Your task to perform on an android device: open app "McDonald's" (install if not already installed) and enter user name: "copes@yahoo.com" and password: "Rhenish" Image 0: 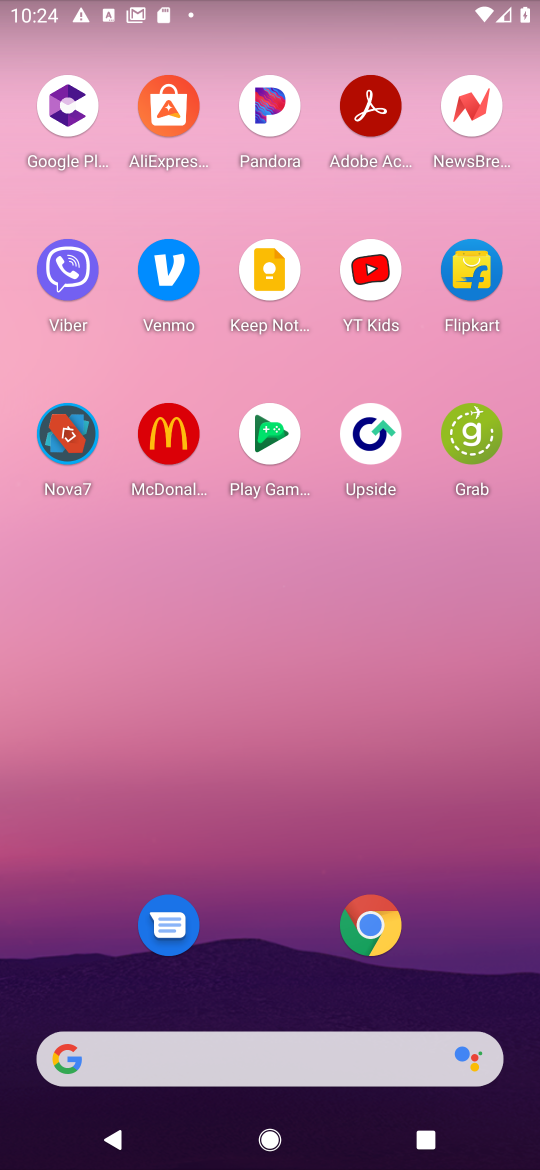
Step 0: drag from (257, 346) to (255, 150)
Your task to perform on an android device: open app "McDonald's" (install if not already installed) and enter user name: "copes@yahoo.com" and password: "Rhenish" Image 1: 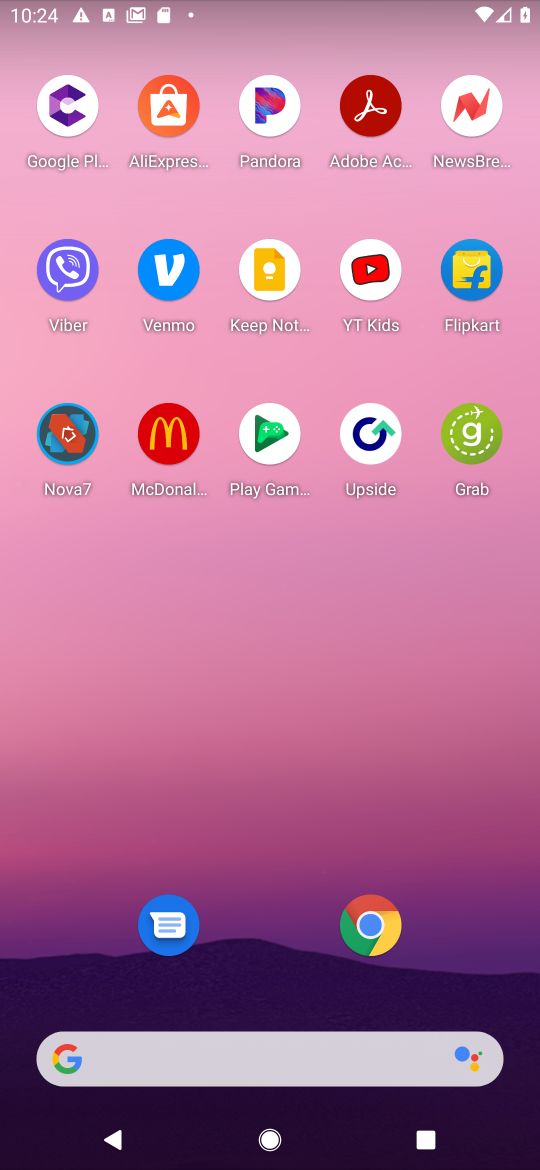
Step 1: drag from (262, 851) to (257, 23)
Your task to perform on an android device: open app "McDonald's" (install if not already installed) and enter user name: "copes@yahoo.com" and password: "Rhenish" Image 2: 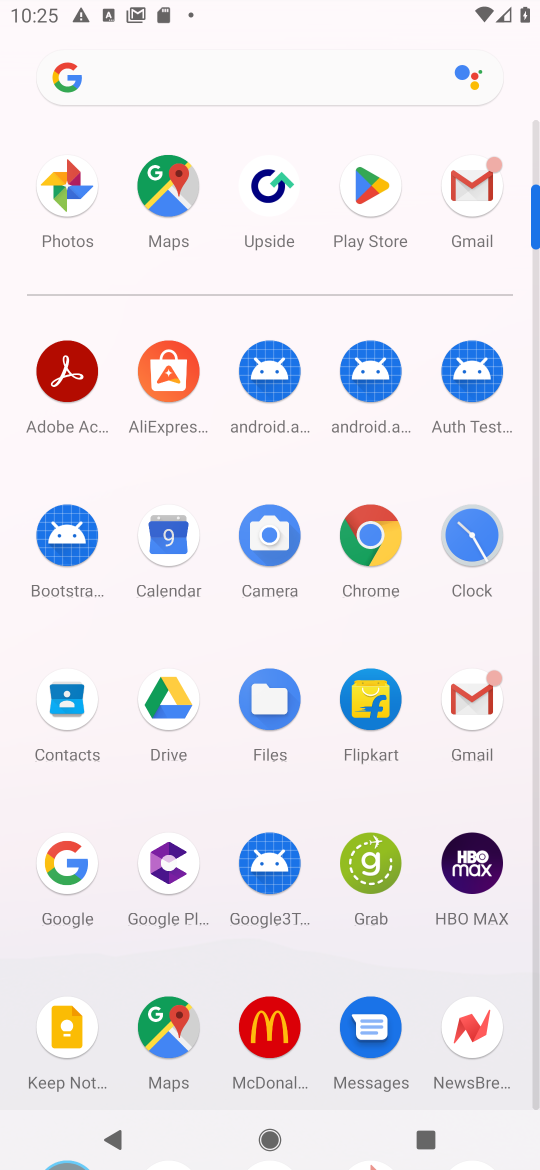
Step 2: click (376, 189)
Your task to perform on an android device: open app "McDonald's" (install if not already installed) and enter user name: "copes@yahoo.com" and password: "Rhenish" Image 3: 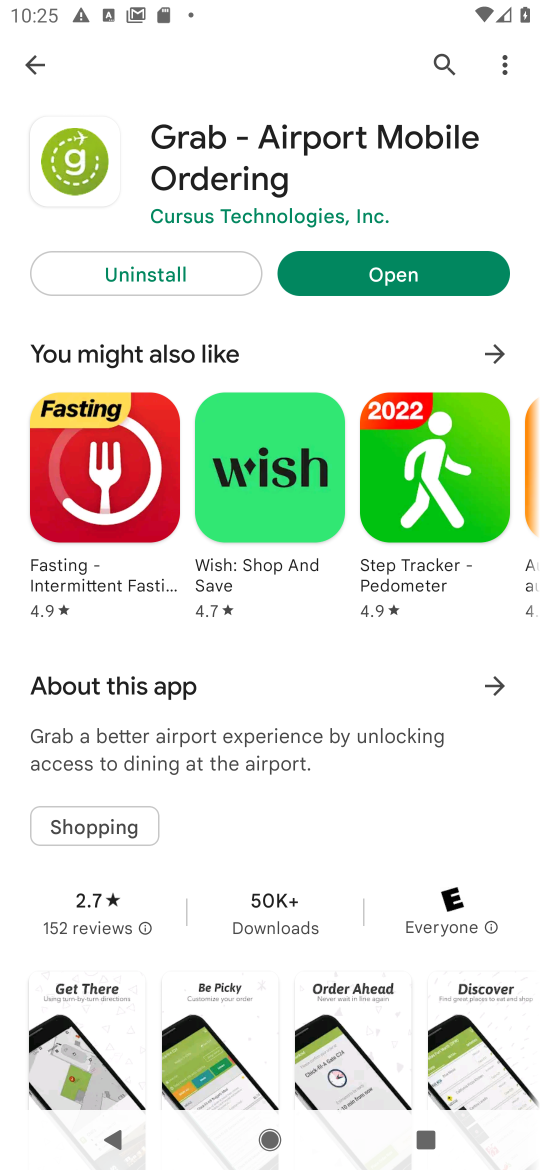
Step 3: click (31, 70)
Your task to perform on an android device: open app "McDonald's" (install if not already installed) and enter user name: "copes@yahoo.com" and password: "Rhenish" Image 4: 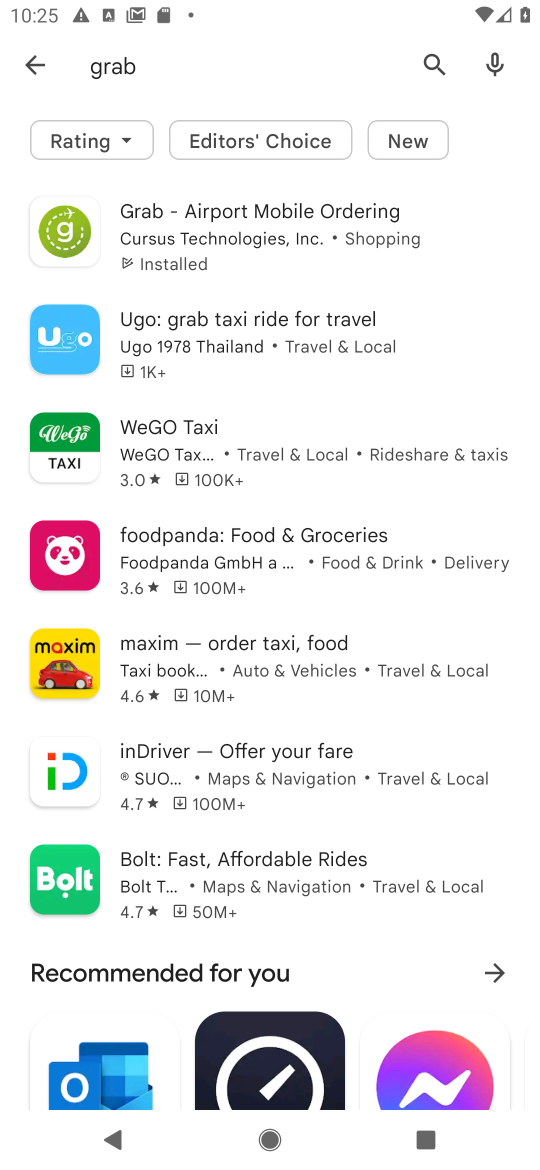
Step 4: click (46, 60)
Your task to perform on an android device: open app "McDonald's" (install if not already installed) and enter user name: "copes@yahoo.com" and password: "Rhenish" Image 5: 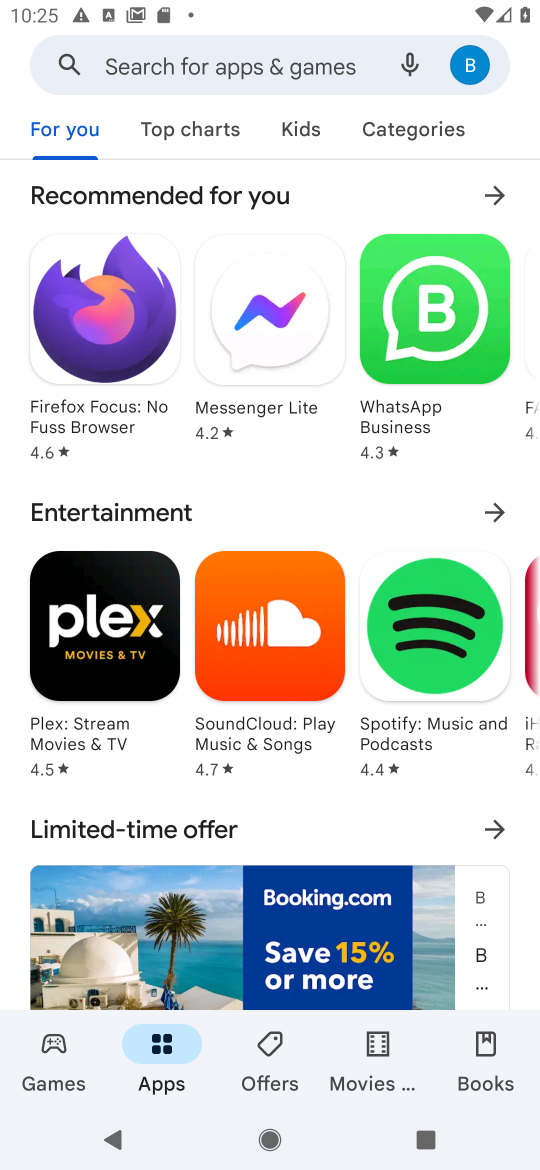
Step 5: click (225, 63)
Your task to perform on an android device: open app "McDonald's" (install if not already installed) and enter user name: "copes@yahoo.com" and password: "Rhenish" Image 6: 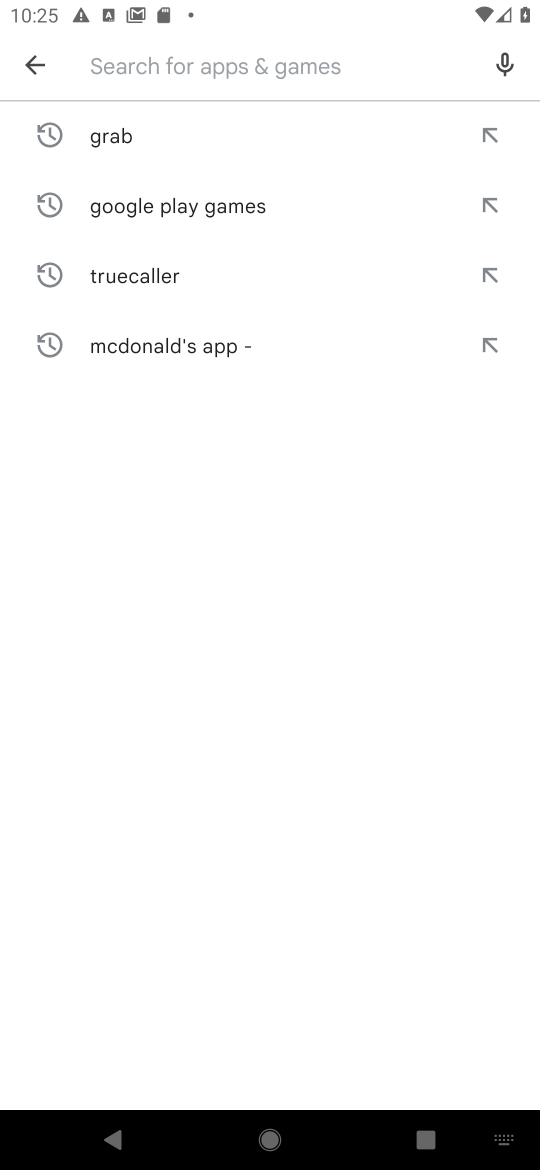
Step 6: type "McDonald's"
Your task to perform on an android device: open app "McDonald's" (install if not already installed) and enter user name: "copes@yahoo.com" and password: "Rhenish" Image 7: 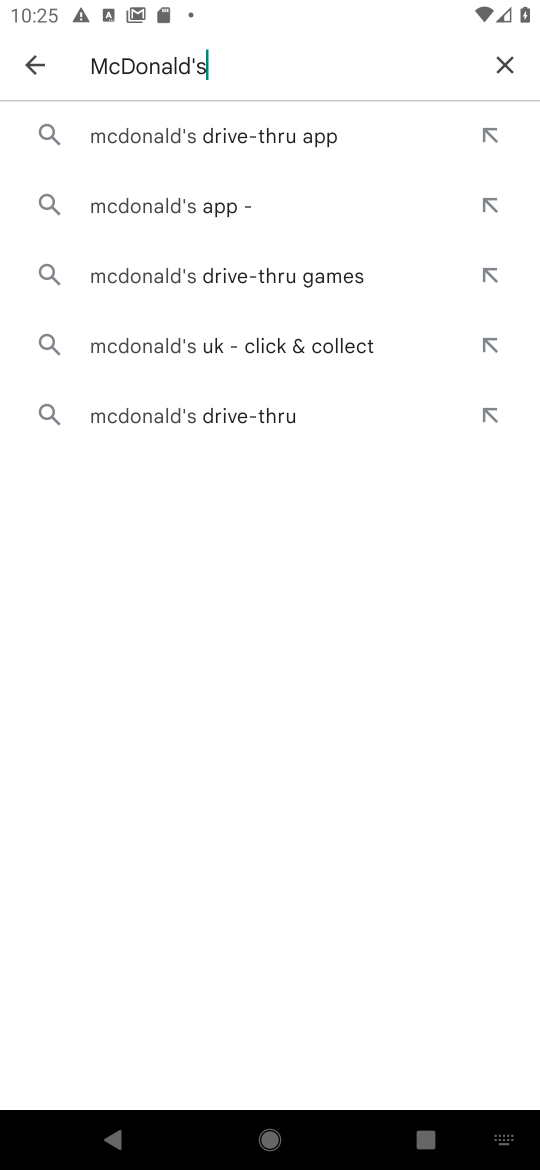
Step 7: click (214, 203)
Your task to perform on an android device: open app "McDonald's" (install if not already installed) and enter user name: "copes@yahoo.com" and password: "Rhenish" Image 8: 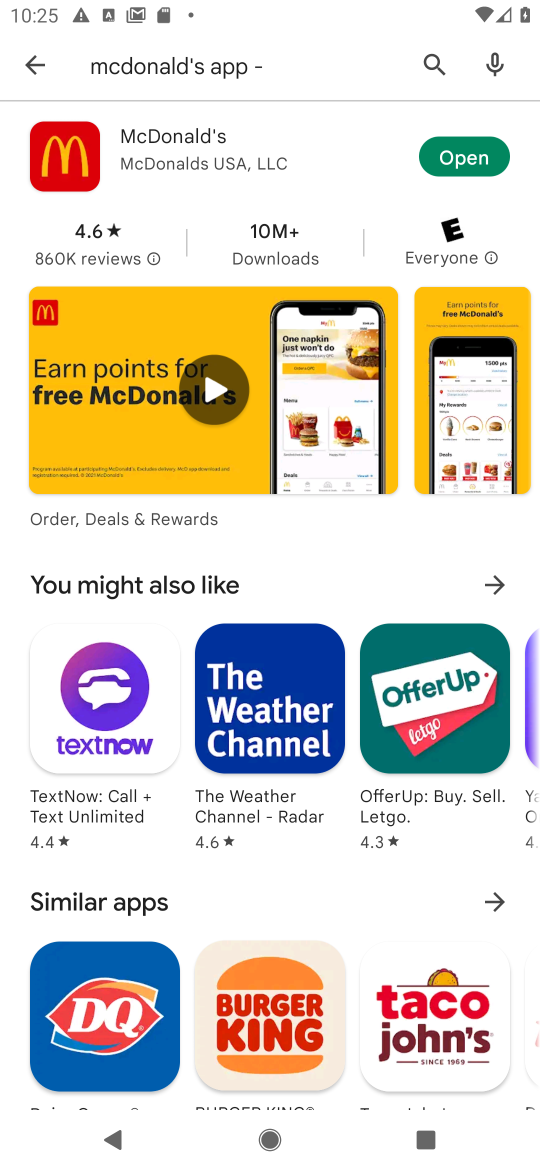
Step 8: click (452, 152)
Your task to perform on an android device: open app "McDonald's" (install if not already installed) and enter user name: "copes@yahoo.com" and password: "Rhenish" Image 9: 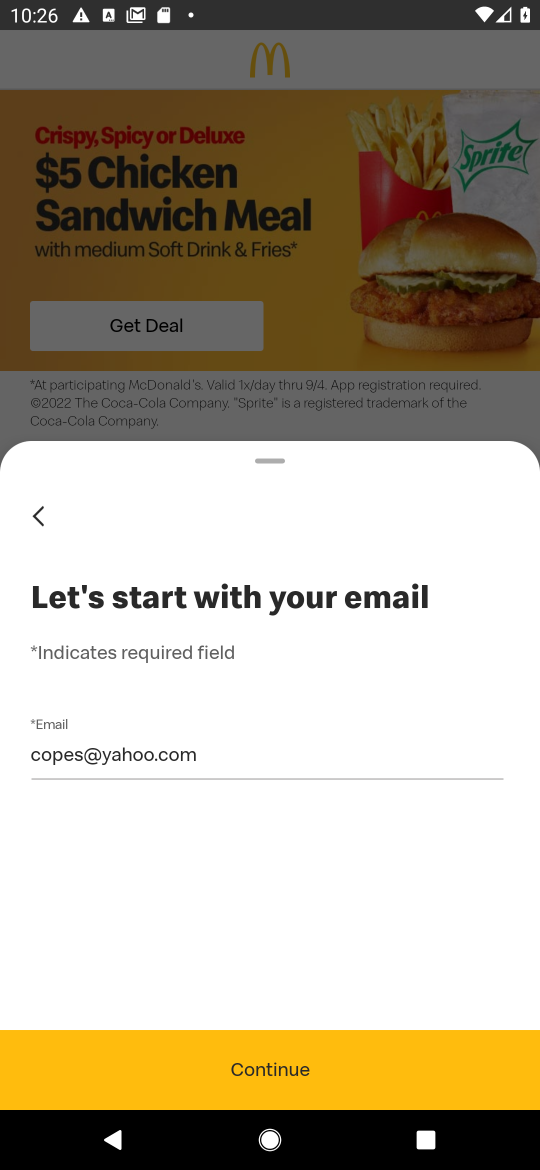
Step 9: click (276, 1083)
Your task to perform on an android device: open app "McDonald's" (install if not already installed) and enter user name: "copes@yahoo.com" and password: "Rhenish" Image 10: 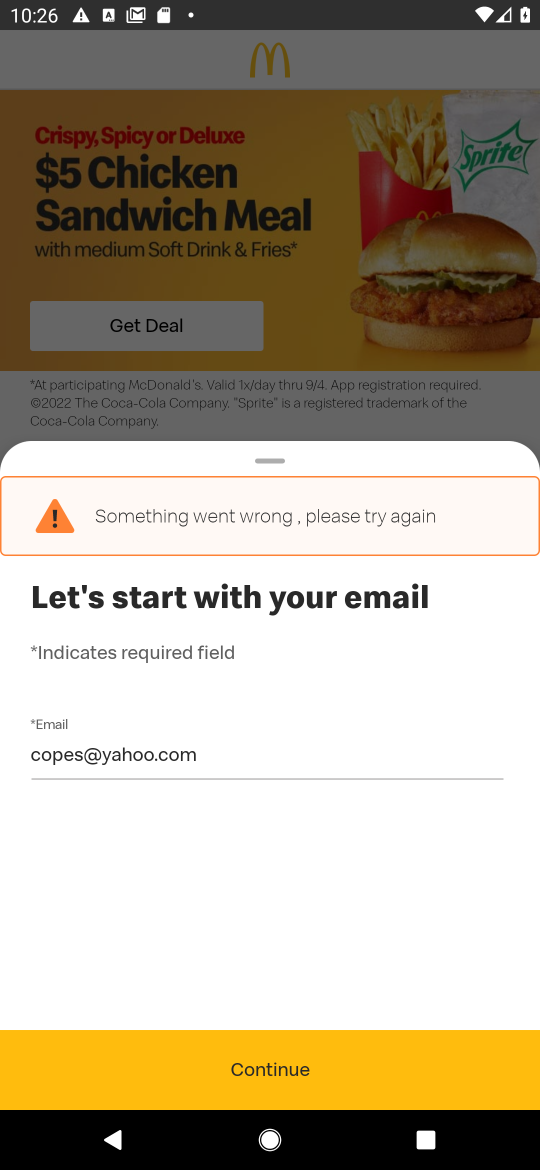
Step 10: task complete